Your task to perform on an android device: toggle translation in the chrome app Image 0: 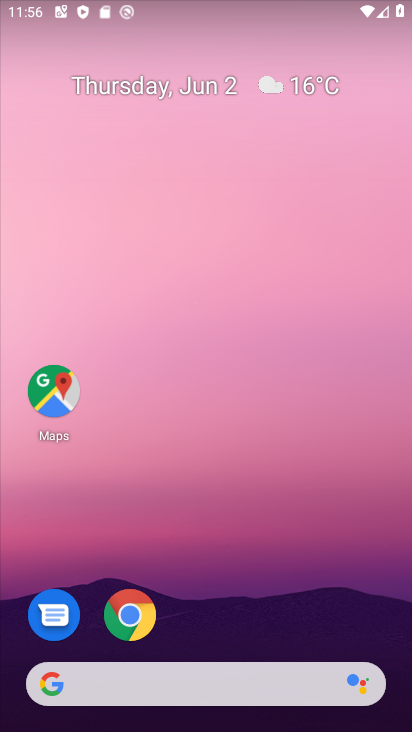
Step 0: drag from (220, 603) to (243, 251)
Your task to perform on an android device: toggle translation in the chrome app Image 1: 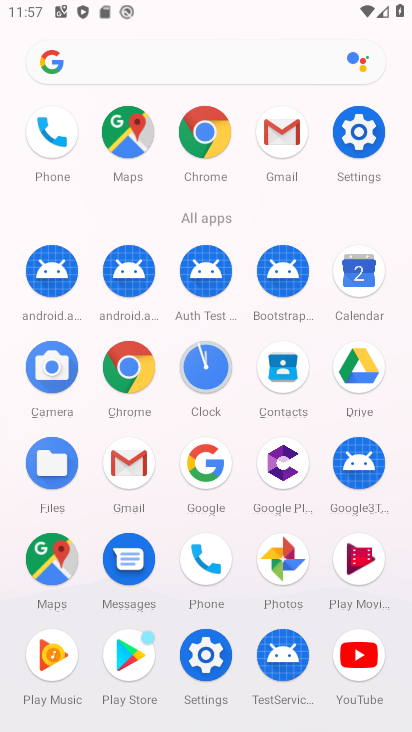
Step 1: click (126, 354)
Your task to perform on an android device: toggle translation in the chrome app Image 2: 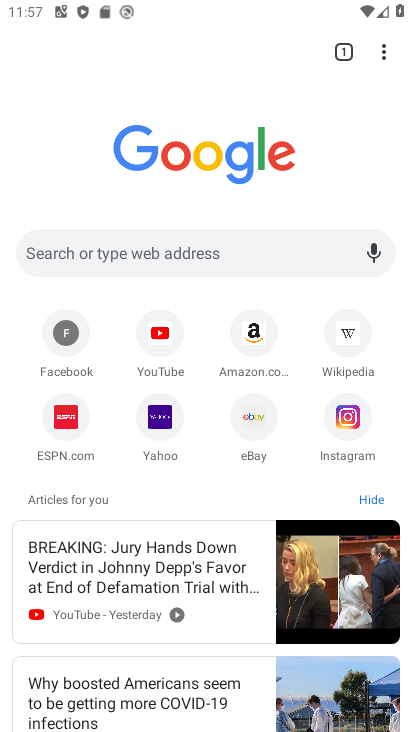
Step 2: click (369, 50)
Your task to perform on an android device: toggle translation in the chrome app Image 3: 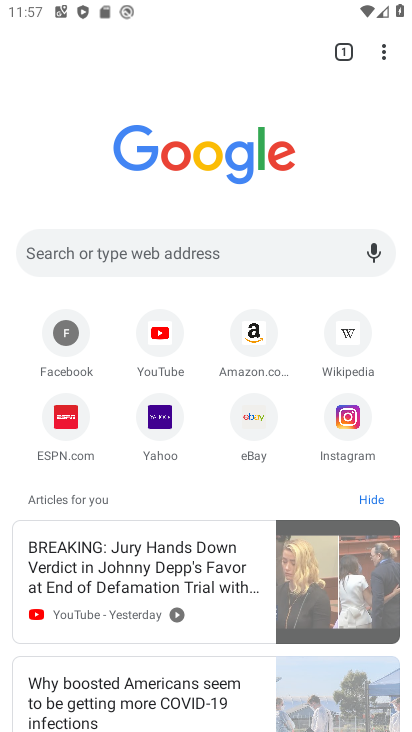
Step 3: click (379, 51)
Your task to perform on an android device: toggle translation in the chrome app Image 4: 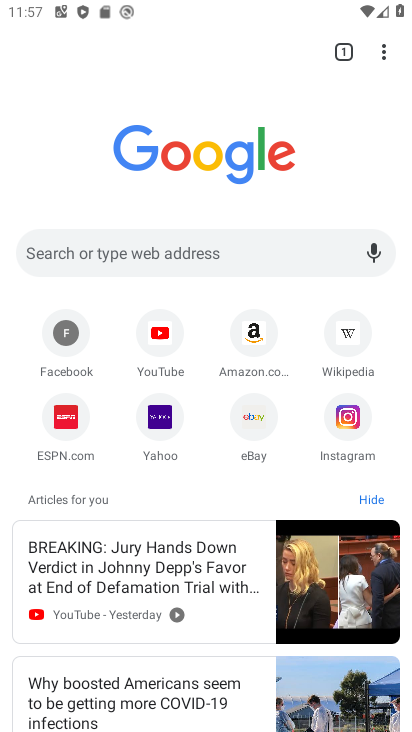
Step 4: click (393, 31)
Your task to perform on an android device: toggle translation in the chrome app Image 5: 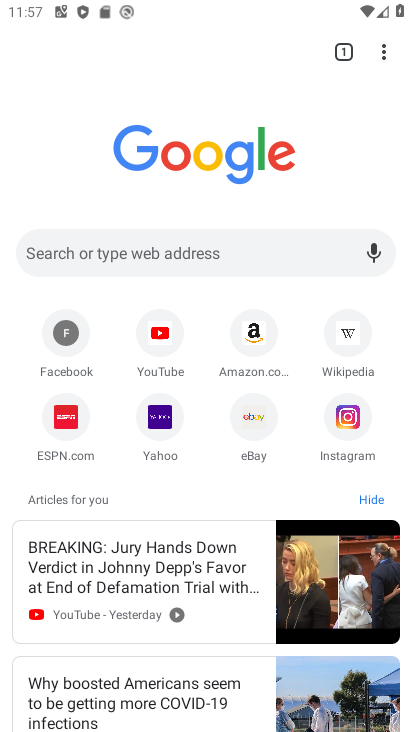
Step 5: click (377, 45)
Your task to perform on an android device: toggle translation in the chrome app Image 6: 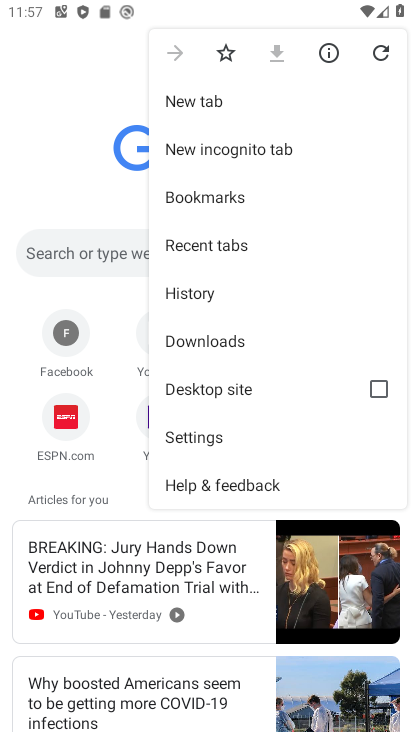
Step 6: click (247, 433)
Your task to perform on an android device: toggle translation in the chrome app Image 7: 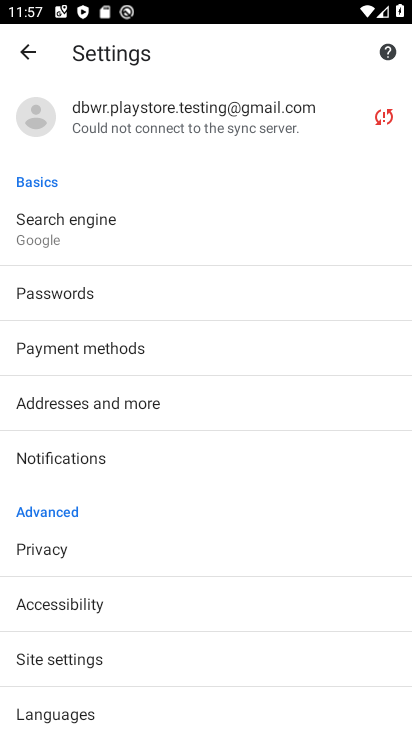
Step 7: drag from (146, 624) to (197, 312)
Your task to perform on an android device: toggle translation in the chrome app Image 8: 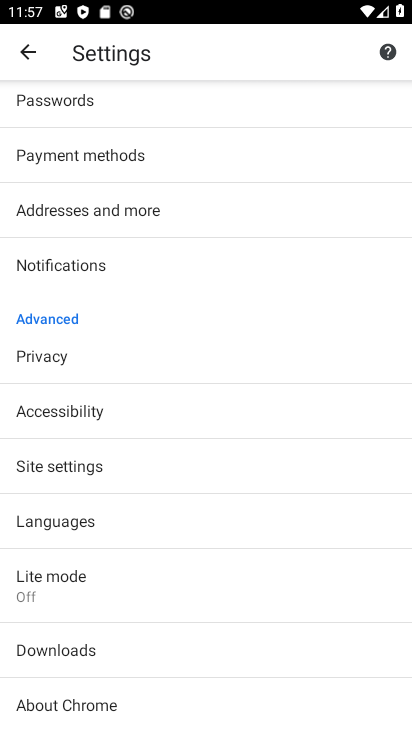
Step 8: click (86, 511)
Your task to perform on an android device: toggle translation in the chrome app Image 9: 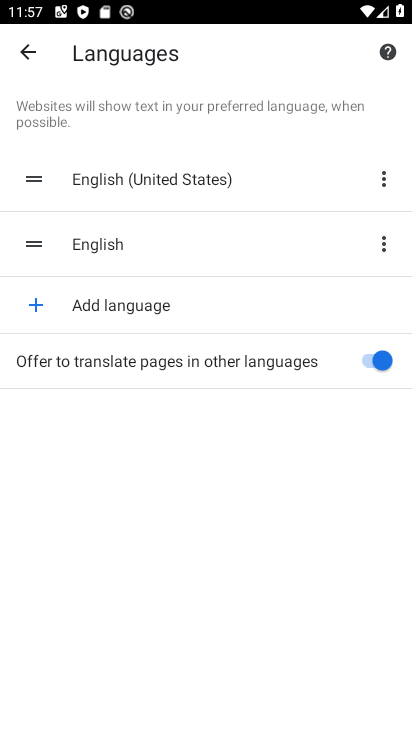
Step 9: click (374, 360)
Your task to perform on an android device: toggle translation in the chrome app Image 10: 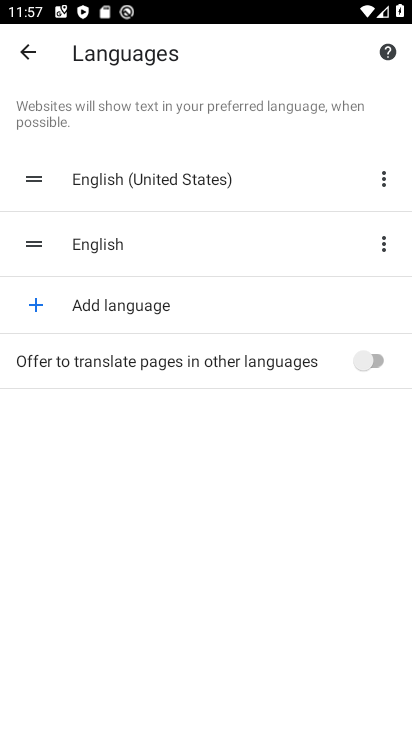
Step 10: task complete